Your task to perform on an android device: What's the weather today? Image 0: 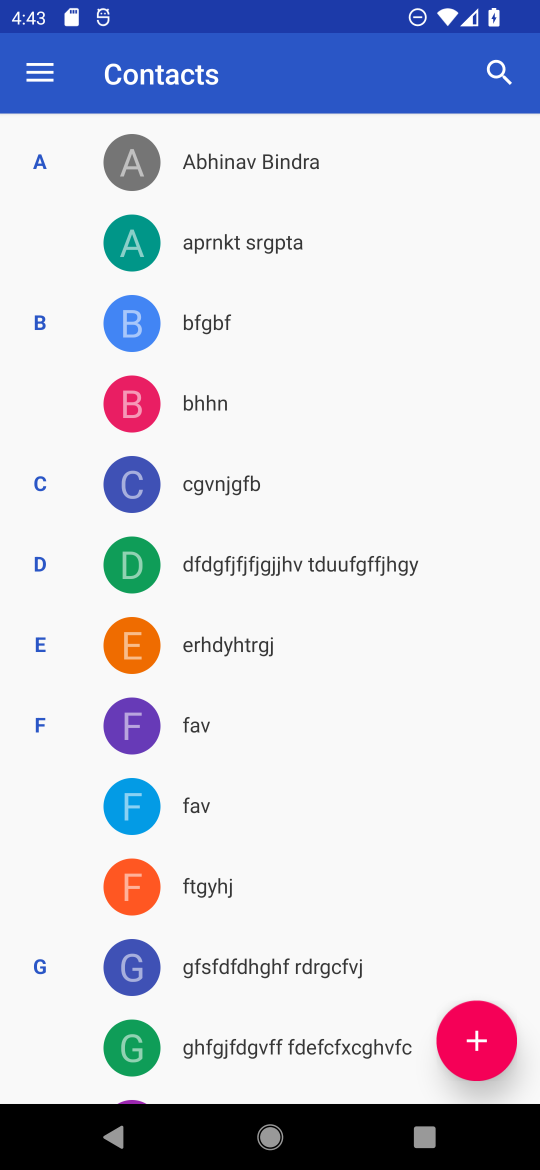
Step 0: press home button
Your task to perform on an android device: What's the weather today? Image 1: 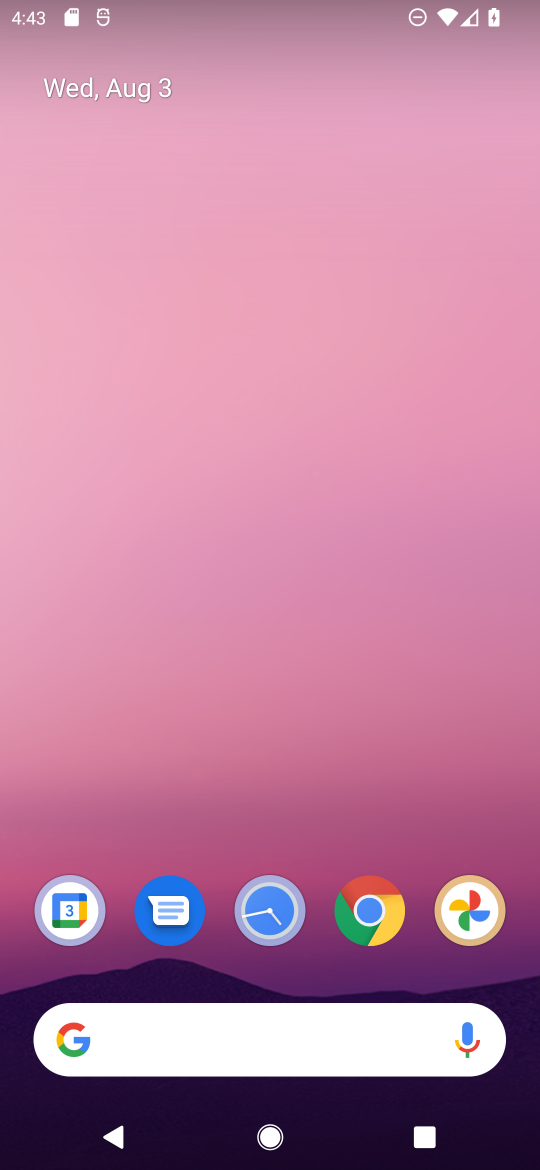
Step 1: drag from (69, 1132) to (209, 282)
Your task to perform on an android device: What's the weather today? Image 2: 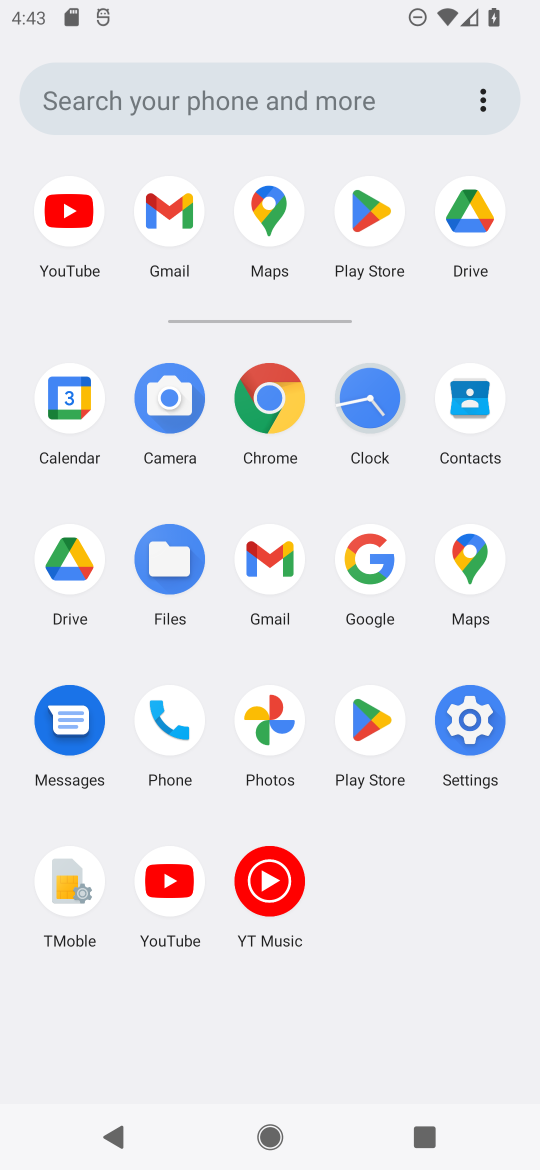
Step 2: click (98, 106)
Your task to perform on an android device: What's the weather today? Image 3: 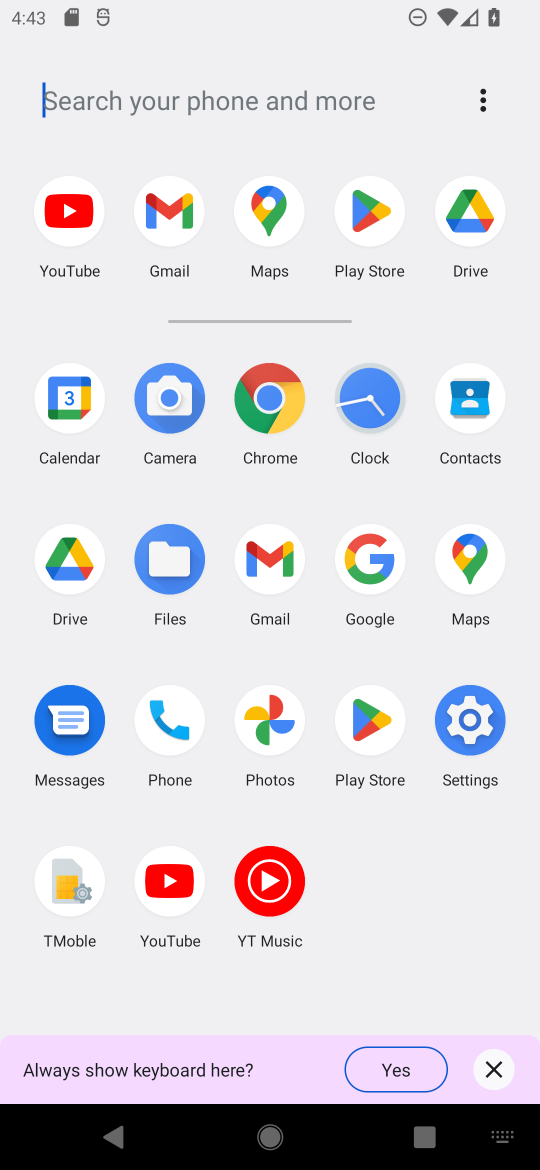
Step 3: type "What's the weather today?"
Your task to perform on an android device: What's the weather today? Image 4: 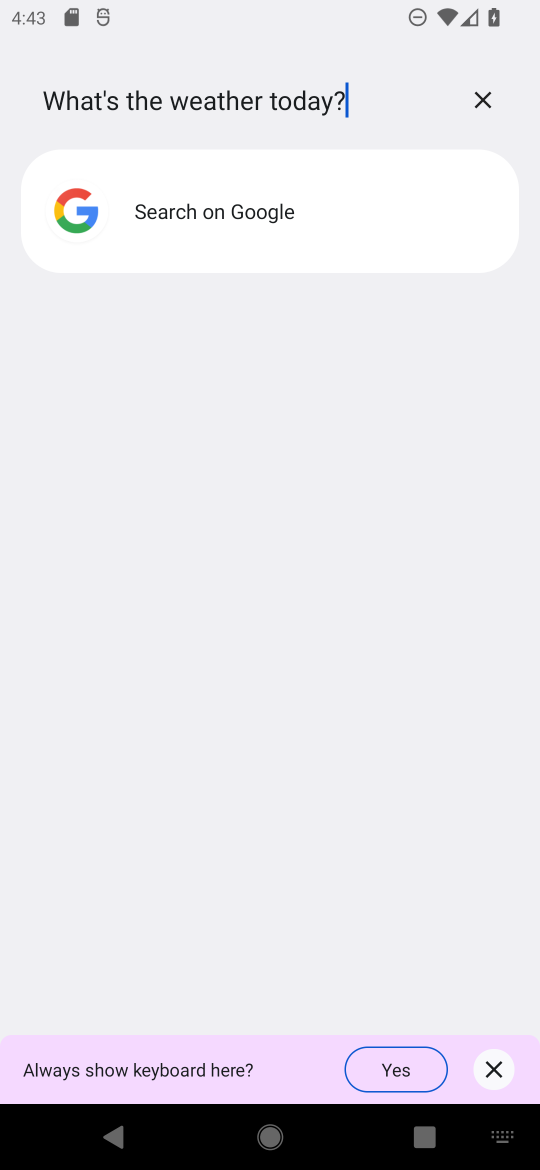
Step 4: type ""
Your task to perform on an android device: What's the weather today? Image 5: 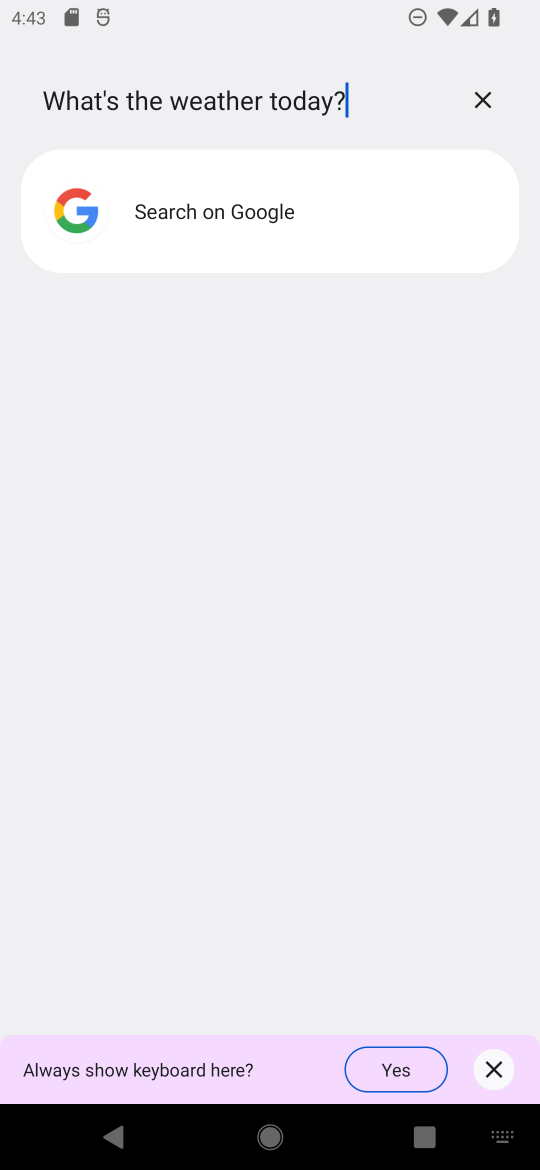
Step 5: type ""
Your task to perform on an android device: What's the weather today? Image 6: 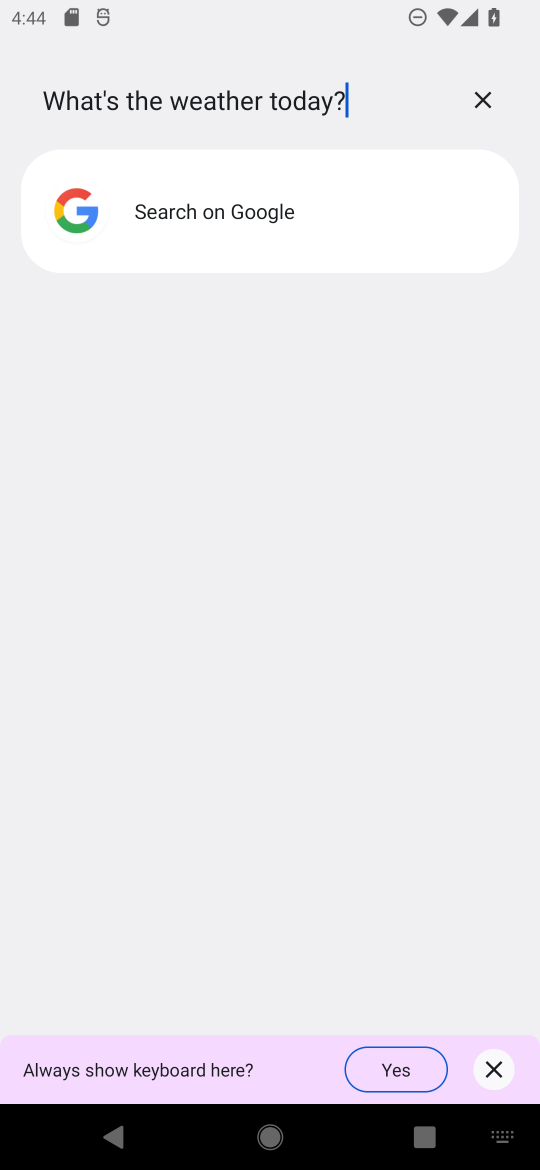
Step 6: task complete